Your task to perform on an android device: turn off location Image 0: 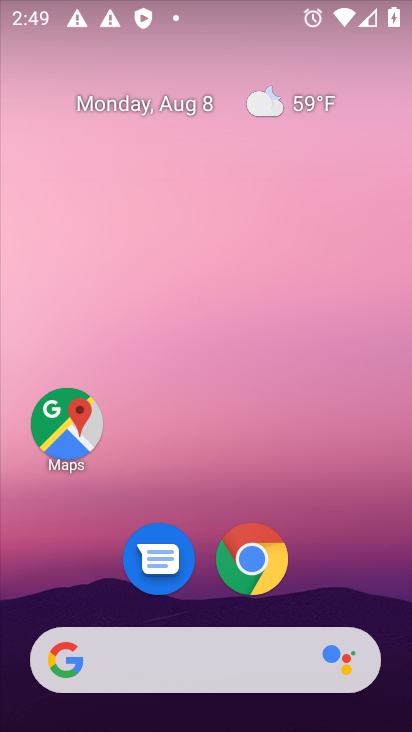
Step 0: drag from (197, 581) to (263, 248)
Your task to perform on an android device: turn off location Image 1: 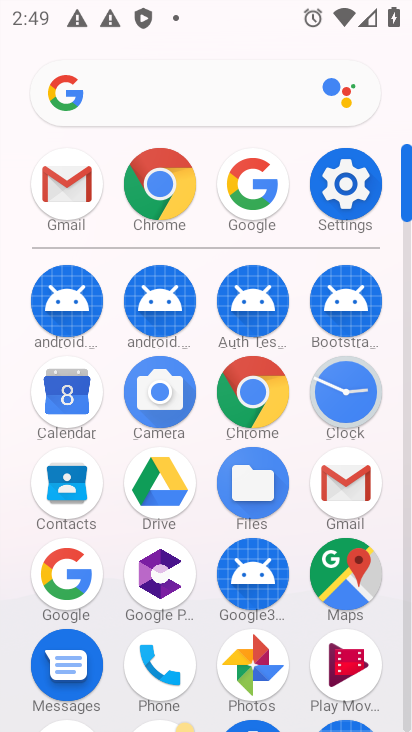
Step 1: click (341, 184)
Your task to perform on an android device: turn off location Image 2: 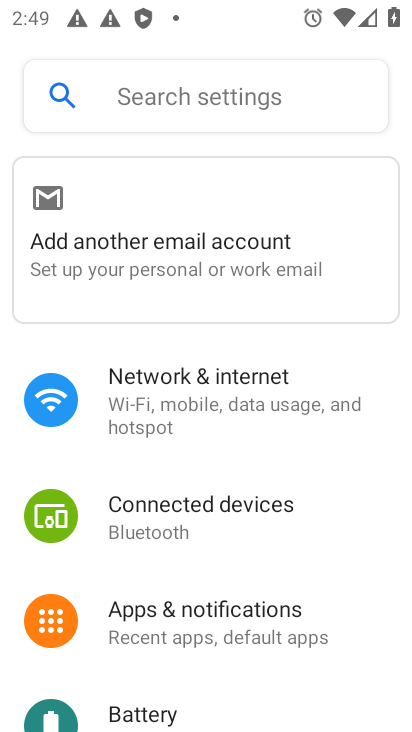
Step 2: drag from (185, 572) to (235, 480)
Your task to perform on an android device: turn off location Image 3: 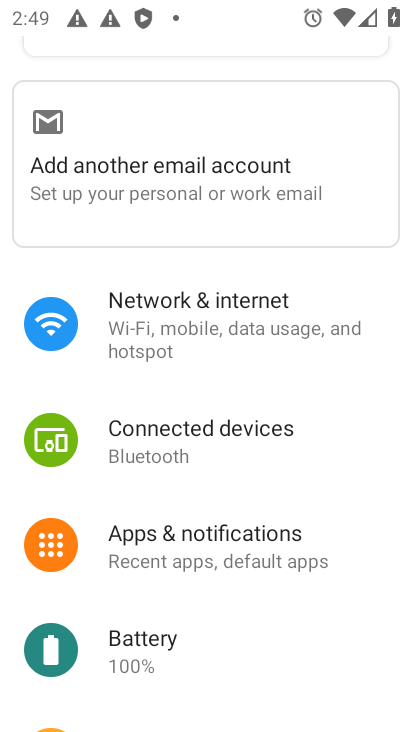
Step 3: drag from (213, 583) to (280, 499)
Your task to perform on an android device: turn off location Image 4: 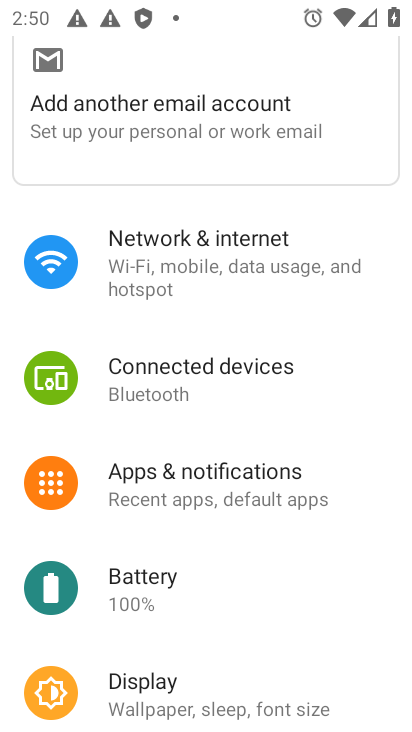
Step 4: drag from (203, 613) to (279, 446)
Your task to perform on an android device: turn off location Image 5: 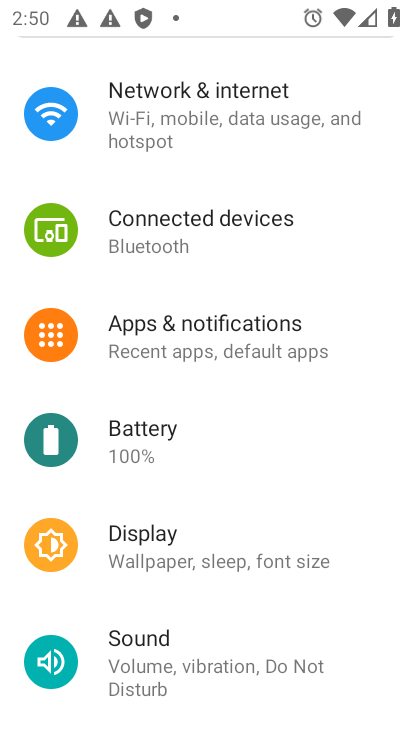
Step 5: drag from (209, 600) to (268, 513)
Your task to perform on an android device: turn off location Image 6: 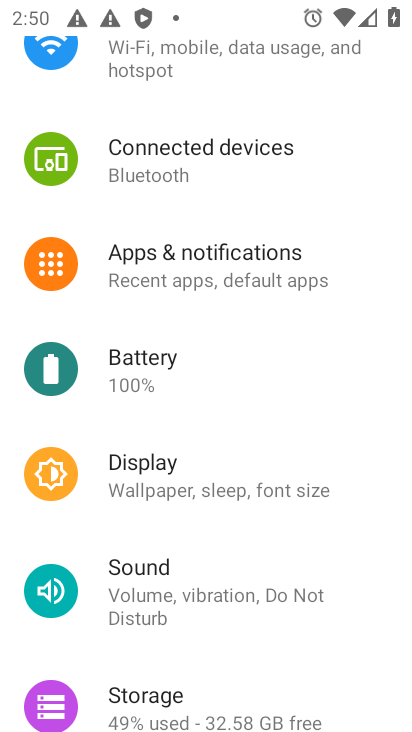
Step 6: drag from (196, 606) to (250, 507)
Your task to perform on an android device: turn off location Image 7: 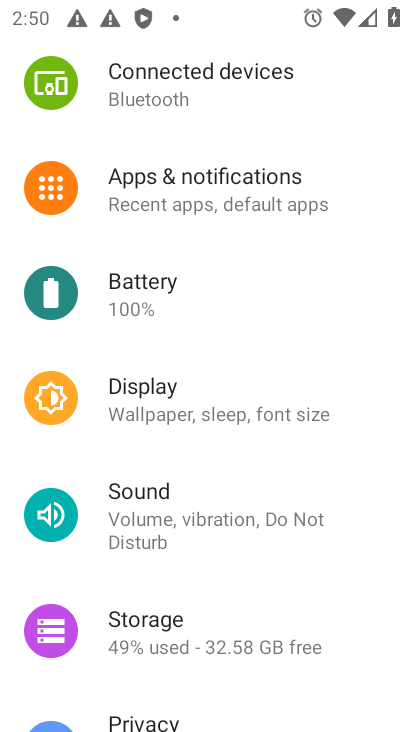
Step 7: drag from (199, 676) to (294, 535)
Your task to perform on an android device: turn off location Image 8: 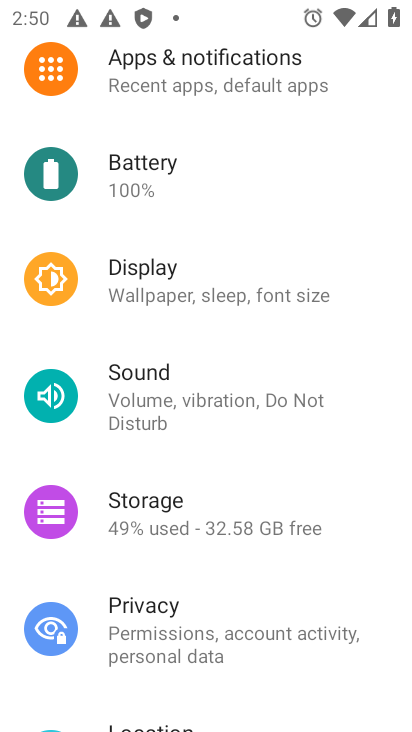
Step 8: drag from (247, 670) to (309, 580)
Your task to perform on an android device: turn off location Image 9: 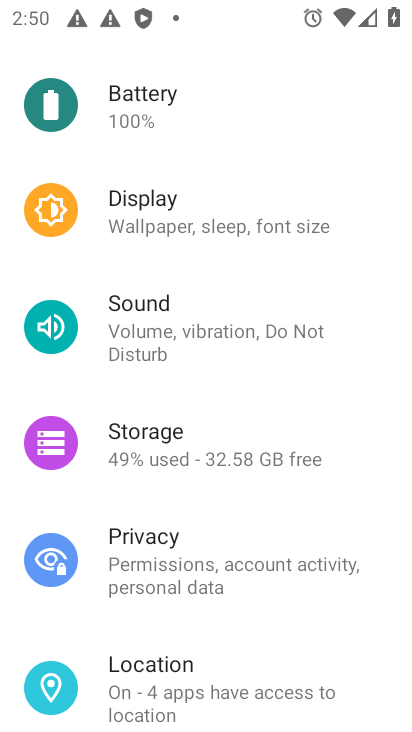
Step 9: drag from (214, 599) to (290, 498)
Your task to perform on an android device: turn off location Image 10: 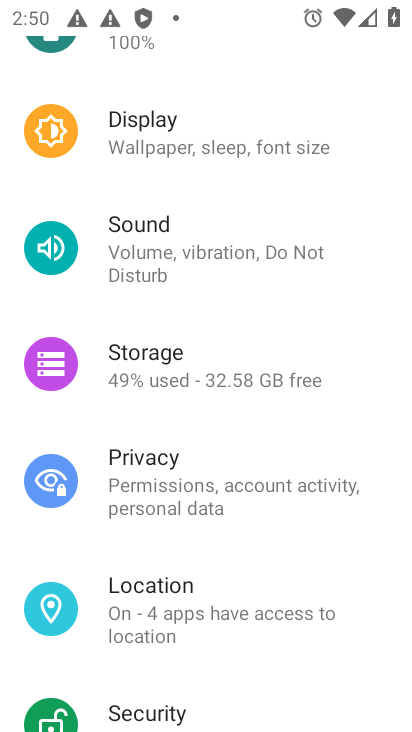
Step 10: drag from (228, 622) to (242, 527)
Your task to perform on an android device: turn off location Image 11: 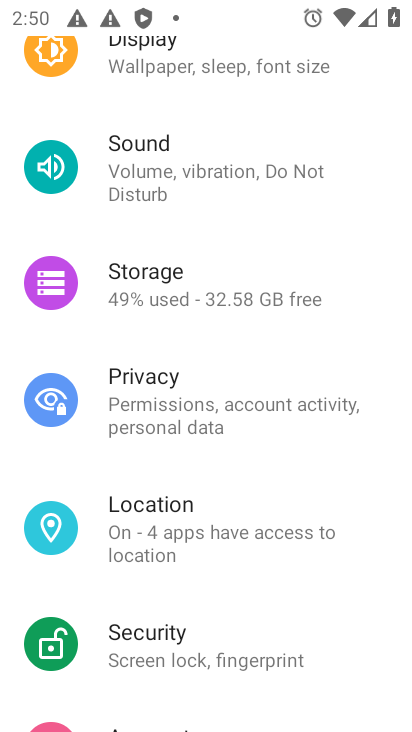
Step 11: drag from (217, 557) to (265, 458)
Your task to perform on an android device: turn off location Image 12: 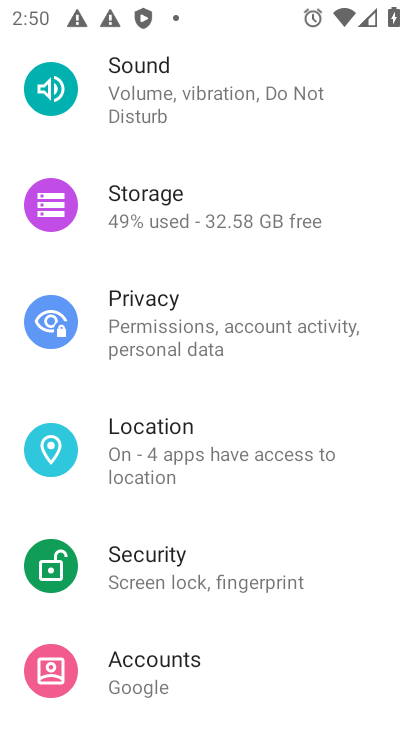
Step 12: click (248, 448)
Your task to perform on an android device: turn off location Image 13: 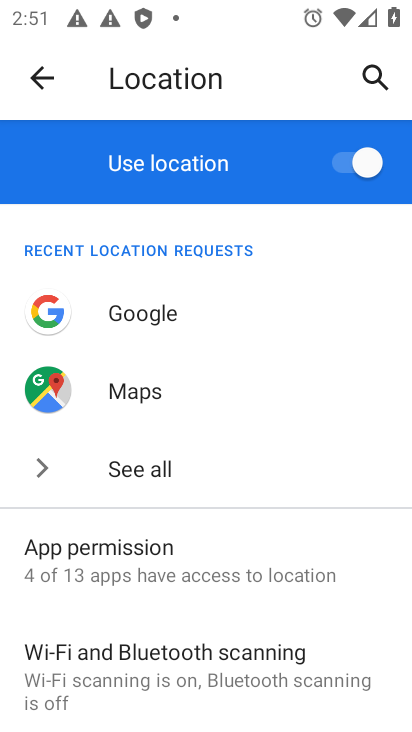
Step 13: click (349, 164)
Your task to perform on an android device: turn off location Image 14: 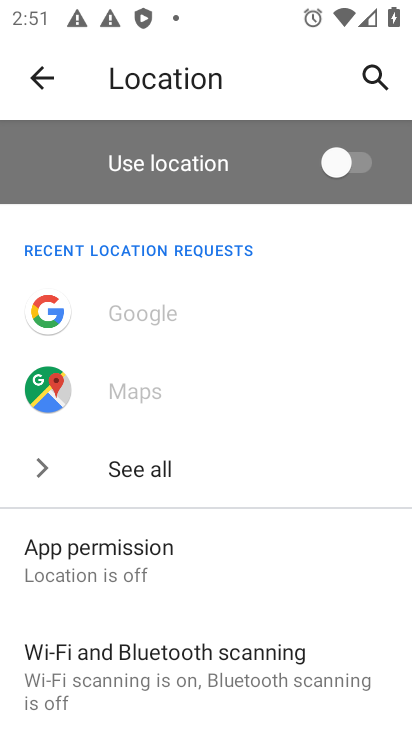
Step 14: task complete